Your task to perform on an android device: Open settings Image 0: 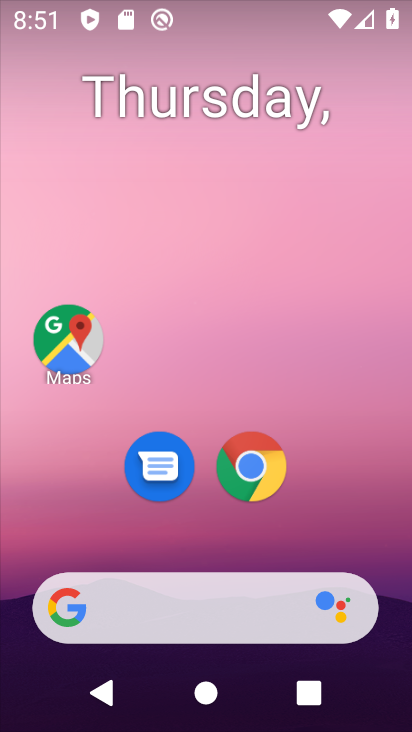
Step 0: press home button
Your task to perform on an android device: Open settings Image 1: 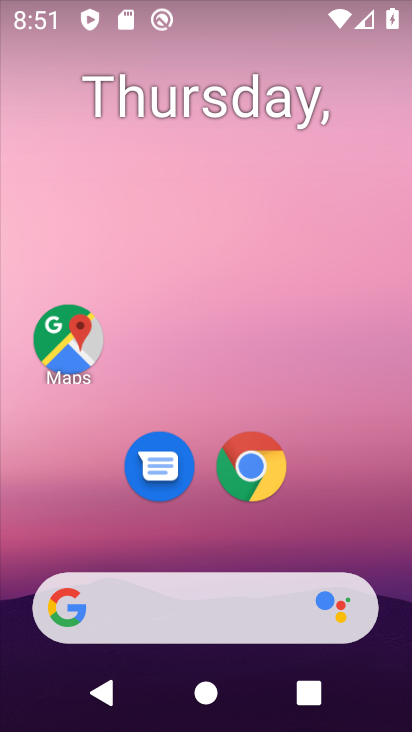
Step 1: drag from (178, 609) to (307, 142)
Your task to perform on an android device: Open settings Image 2: 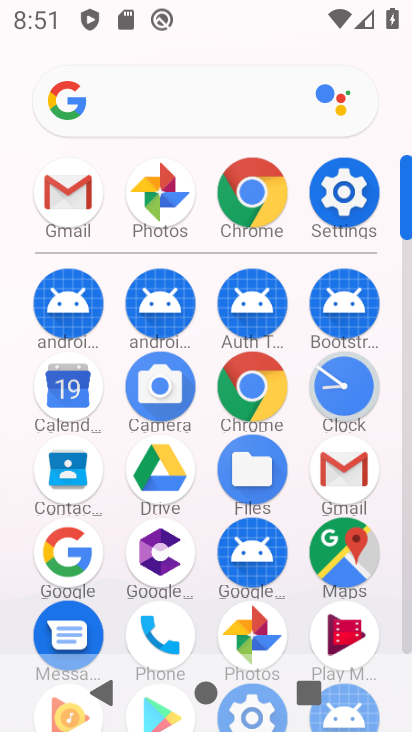
Step 2: click (352, 192)
Your task to perform on an android device: Open settings Image 3: 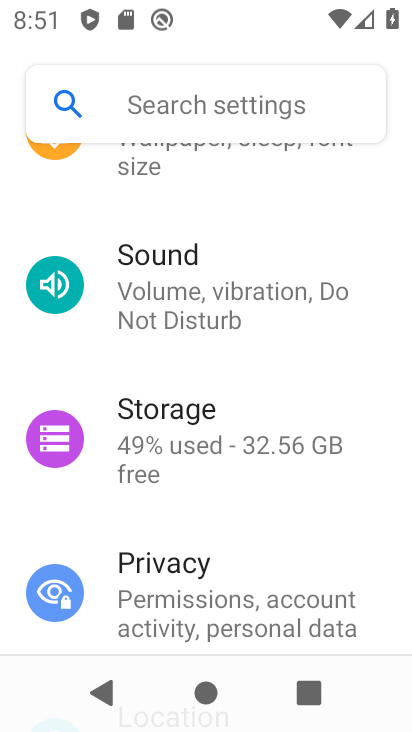
Step 3: task complete